Your task to perform on an android device: search for starred emails in the gmail app Image 0: 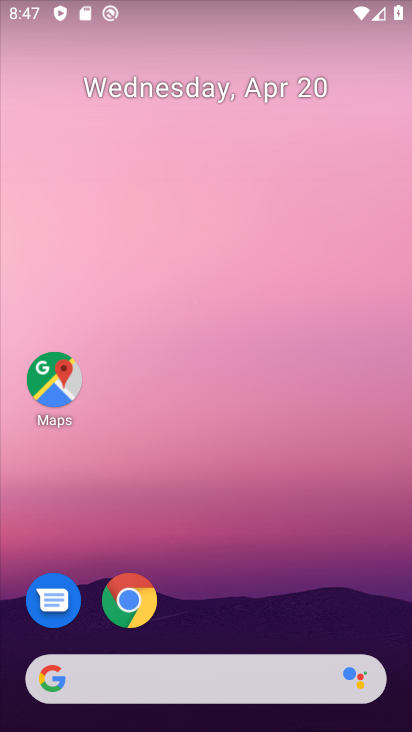
Step 0: drag from (227, 653) to (191, 156)
Your task to perform on an android device: search for starred emails in the gmail app Image 1: 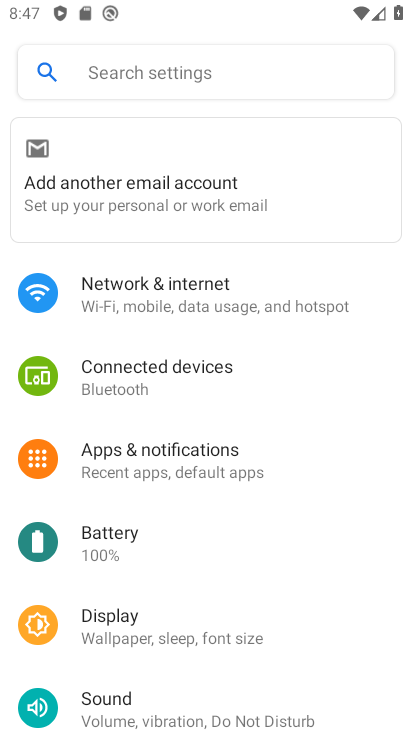
Step 1: press home button
Your task to perform on an android device: search for starred emails in the gmail app Image 2: 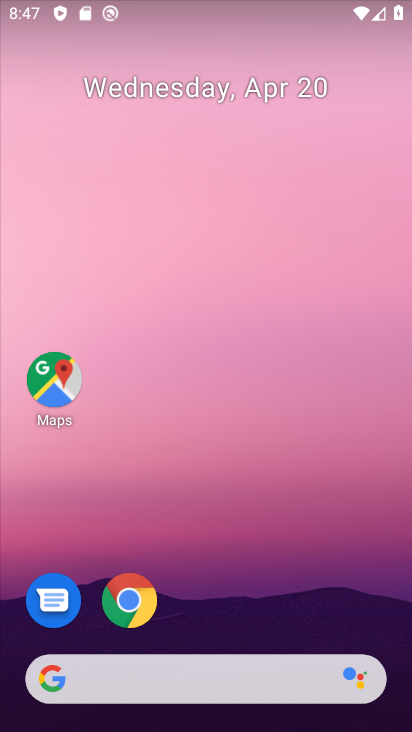
Step 2: drag from (185, 677) to (177, 156)
Your task to perform on an android device: search for starred emails in the gmail app Image 3: 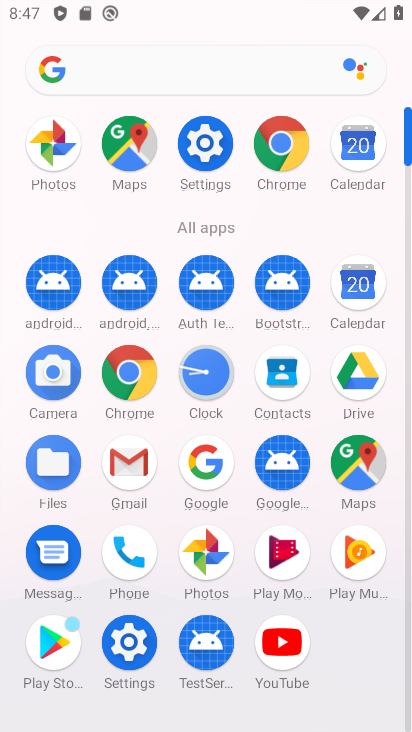
Step 3: click (125, 455)
Your task to perform on an android device: search for starred emails in the gmail app Image 4: 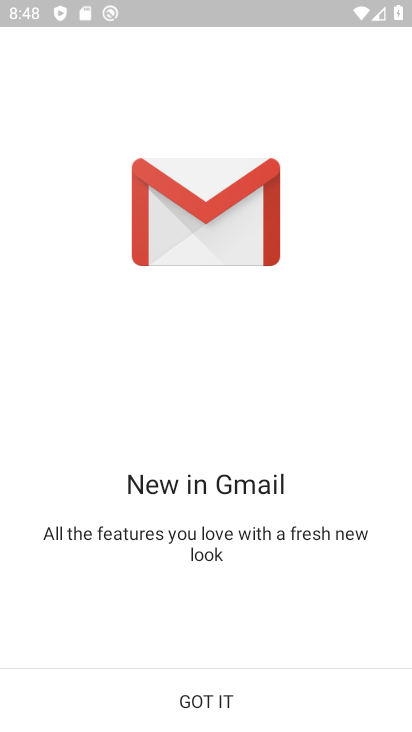
Step 4: click (231, 690)
Your task to perform on an android device: search for starred emails in the gmail app Image 5: 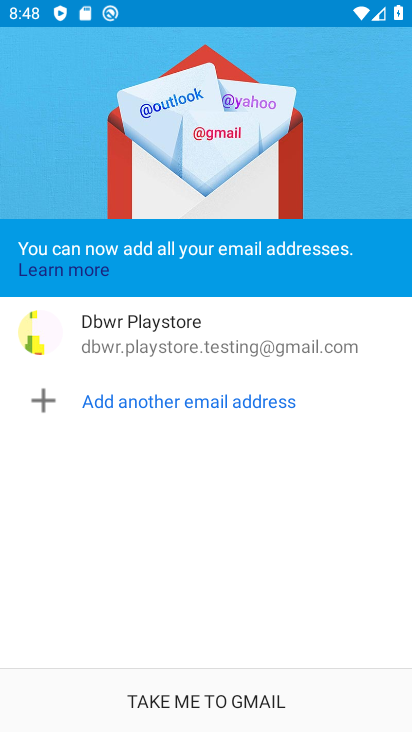
Step 5: click (272, 703)
Your task to perform on an android device: search for starred emails in the gmail app Image 6: 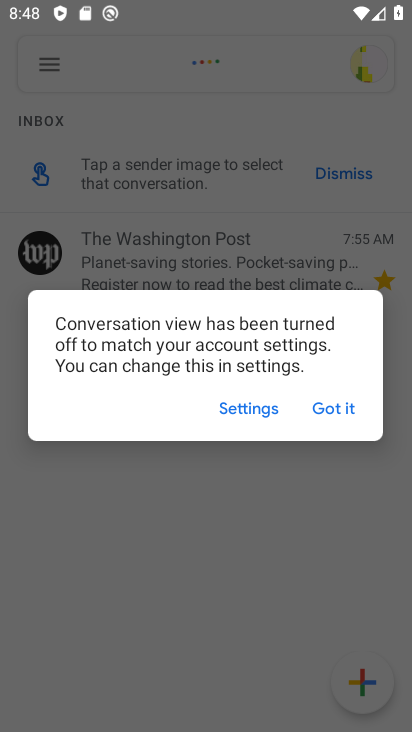
Step 6: click (343, 421)
Your task to perform on an android device: search for starred emails in the gmail app Image 7: 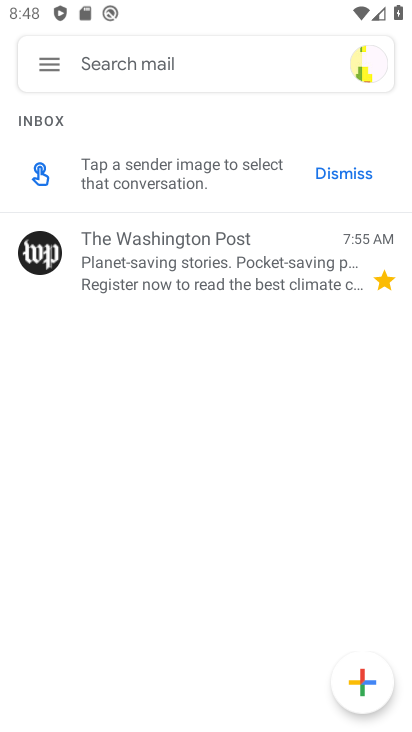
Step 7: click (45, 73)
Your task to perform on an android device: search for starred emails in the gmail app Image 8: 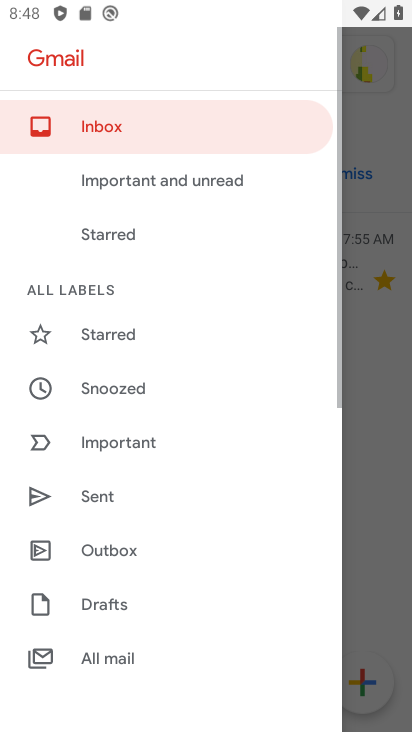
Step 8: click (126, 240)
Your task to perform on an android device: search for starred emails in the gmail app Image 9: 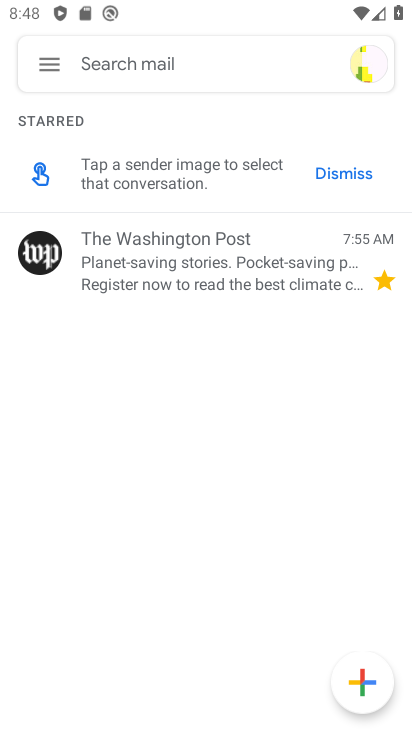
Step 9: task complete